Your task to perform on an android device: Is it going to rain this weekend? Image 0: 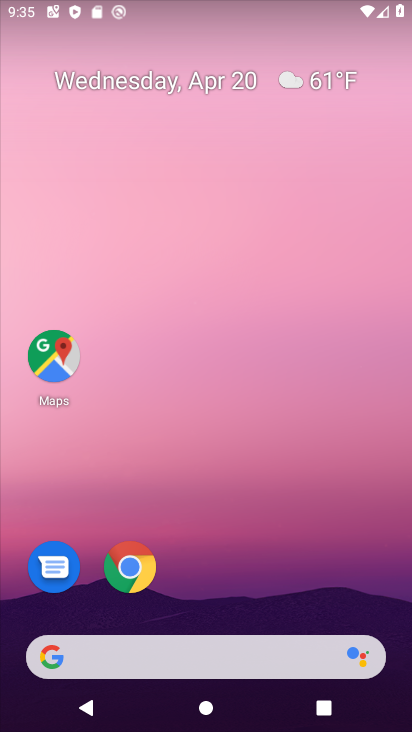
Step 0: click (133, 574)
Your task to perform on an android device: Is it going to rain this weekend? Image 1: 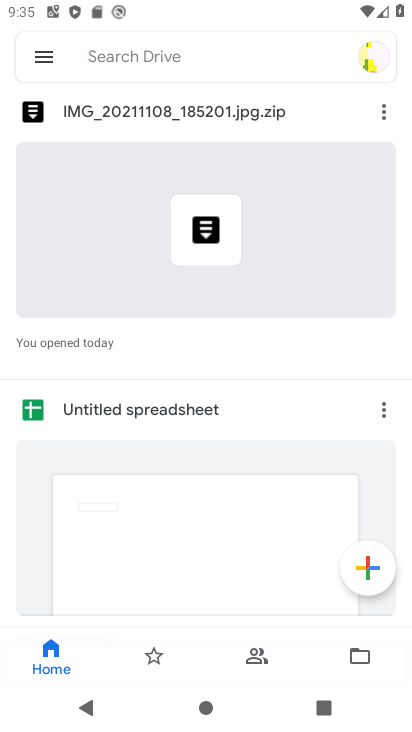
Step 1: press back button
Your task to perform on an android device: Is it going to rain this weekend? Image 2: 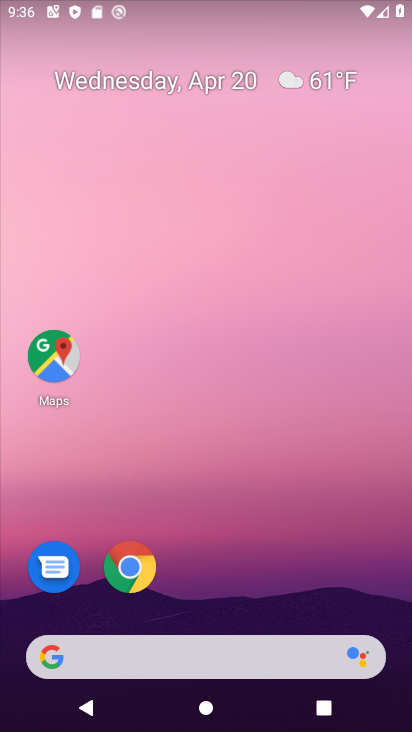
Step 2: click (215, 644)
Your task to perform on an android device: Is it going to rain this weekend? Image 3: 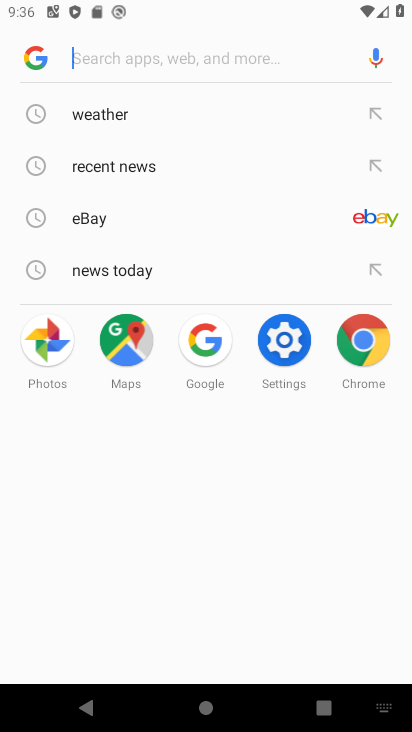
Step 3: click (113, 113)
Your task to perform on an android device: Is it going to rain this weekend? Image 4: 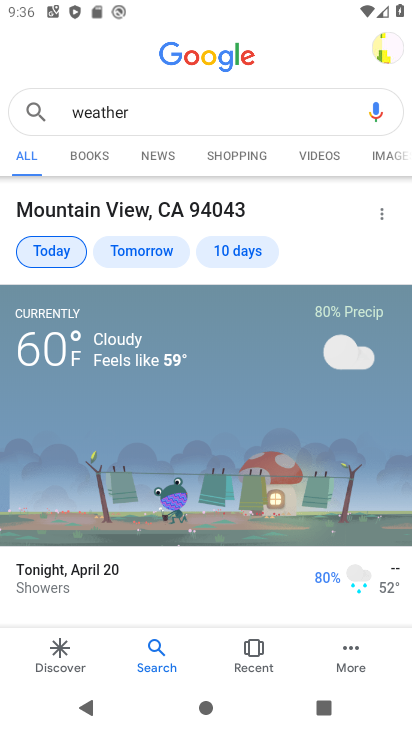
Step 4: click (237, 245)
Your task to perform on an android device: Is it going to rain this weekend? Image 5: 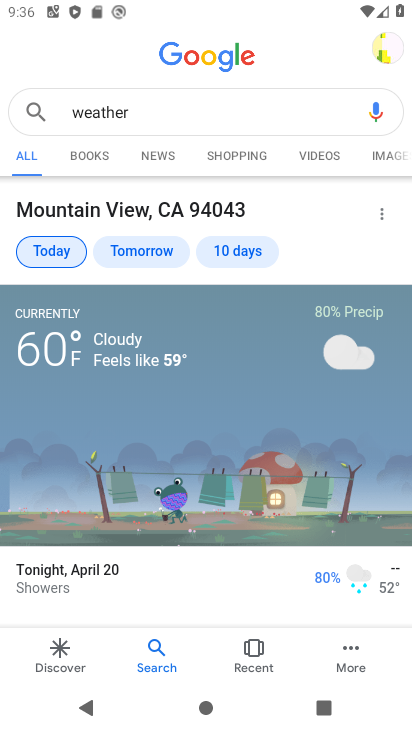
Step 5: click (235, 254)
Your task to perform on an android device: Is it going to rain this weekend? Image 6: 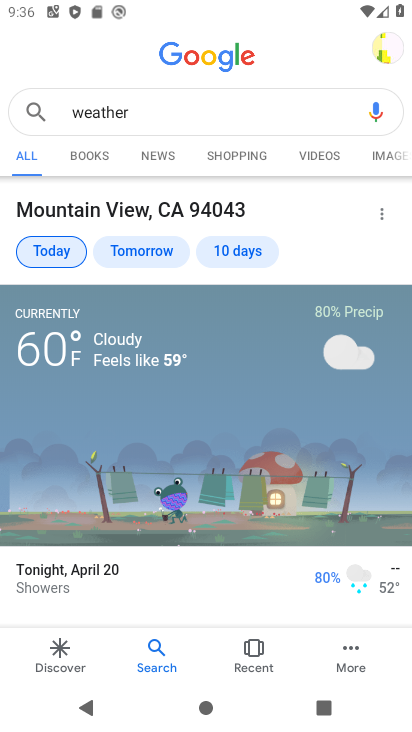
Step 6: click (242, 263)
Your task to perform on an android device: Is it going to rain this weekend? Image 7: 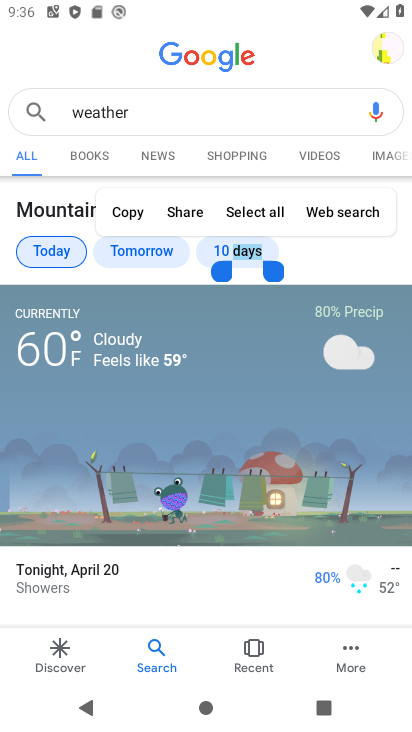
Step 7: click (231, 384)
Your task to perform on an android device: Is it going to rain this weekend? Image 8: 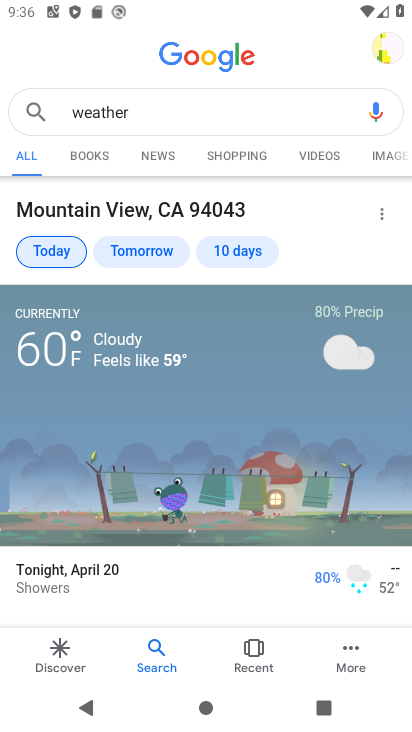
Step 8: click (211, 246)
Your task to perform on an android device: Is it going to rain this weekend? Image 9: 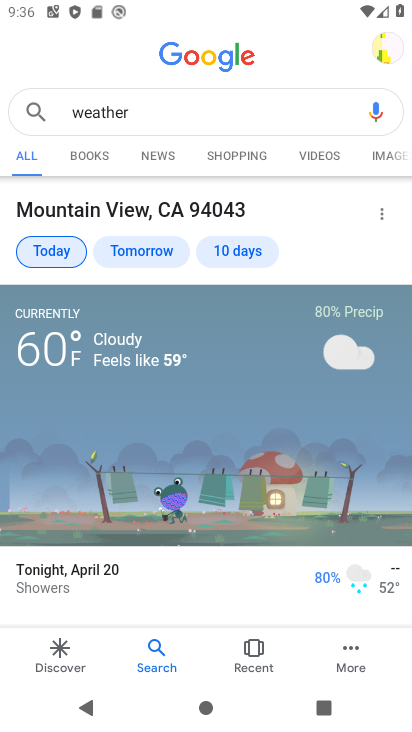
Step 9: click (238, 245)
Your task to perform on an android device: Is it going to rain this weekend? Image 10: 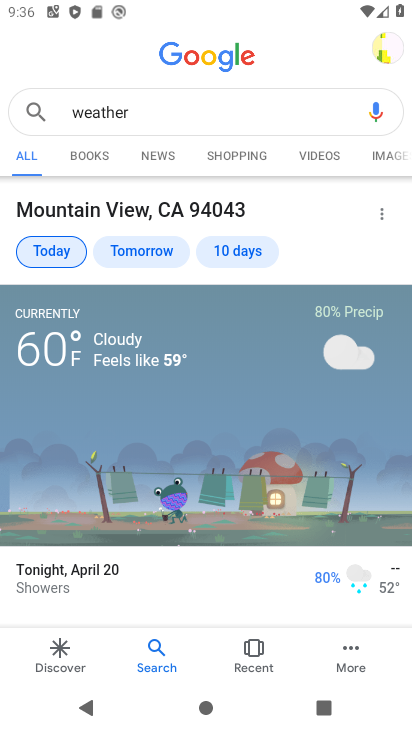
Step 10: task complete